Your task to perform on an android device: turn on javascript in the chrome app Image 0: 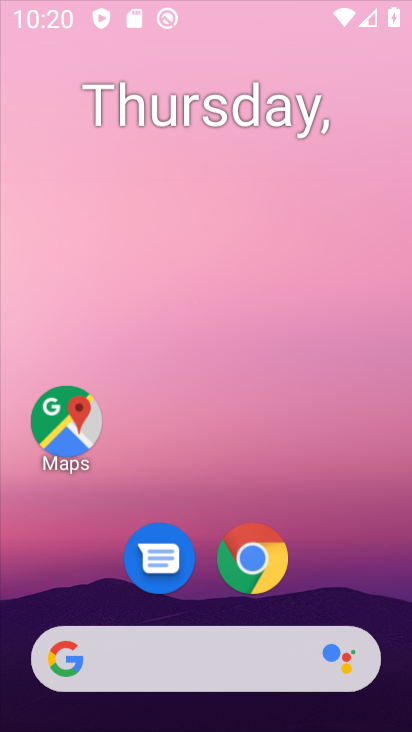
Step 0: click (71, 412)
Your task to perform on an android device: turn on javascript in the chrome app Image 1: 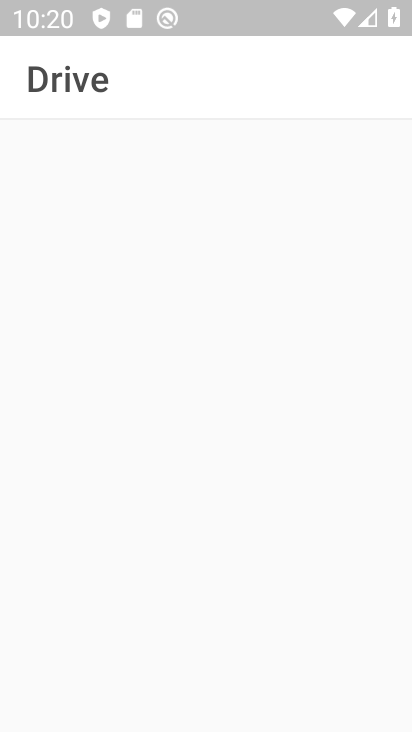
Step 1: press home button
Your task to perform on an android device: turn on javascript in the chrome app Image 2: 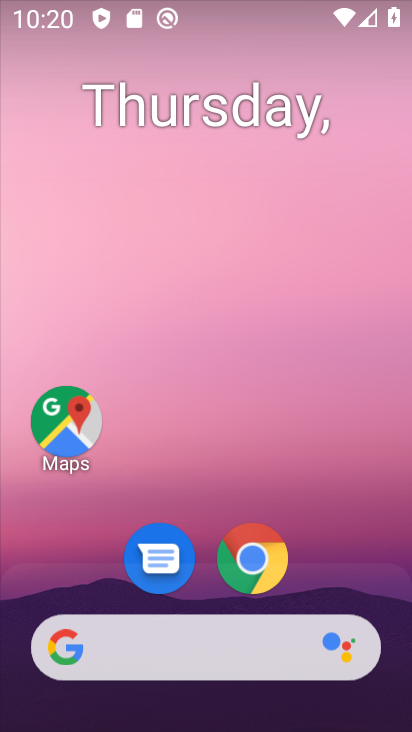
Step 2: click (255, 557)
Your task to perform on an android device: turn on javascript in the chrome app Image 3: 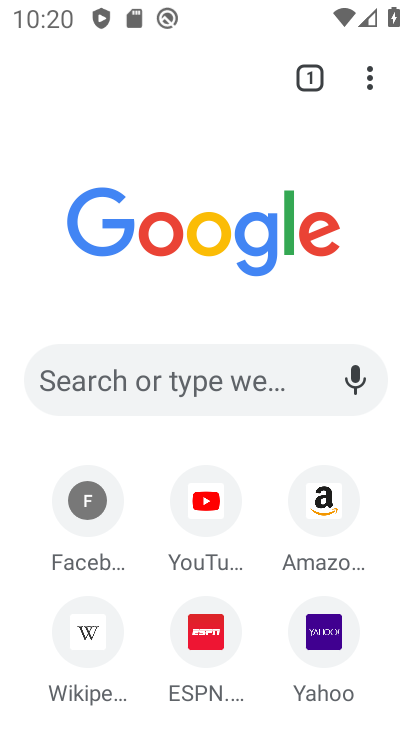
Step 3: click (369, 87)
Your task to perform on an android device: turn on javascript in the chrome app Image 4: 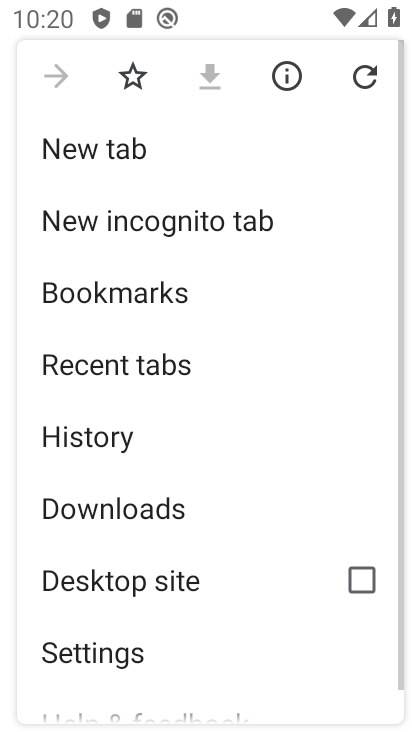
Step 4: click (113, 651)
Your task to perform on an android device: turn on javascript in the chrome app Image 5: 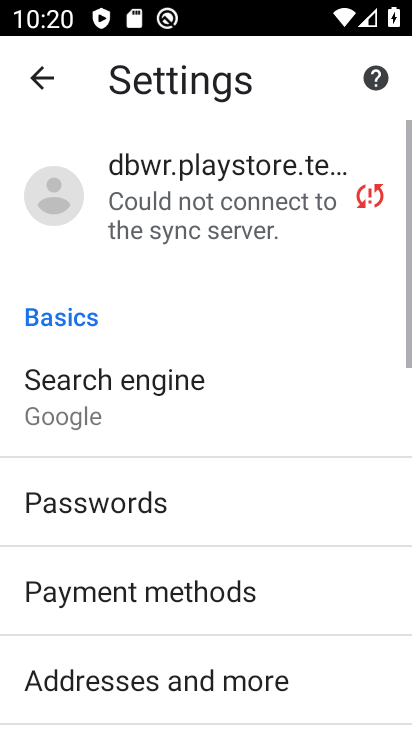
Step 5: drag from (283, 615) to (316, 104)
Your task to perform on an android device: turn on javascript in the chrome app Image 6: 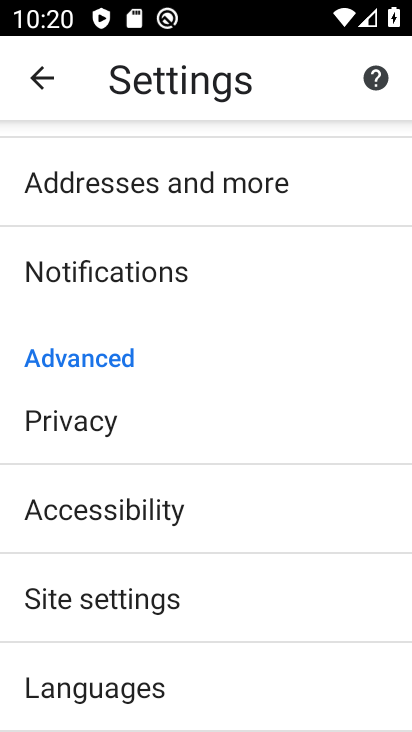
Step 6: click (133, 610)
Your task to perform on an android device: turn on javascript in the chrome app Image 7: 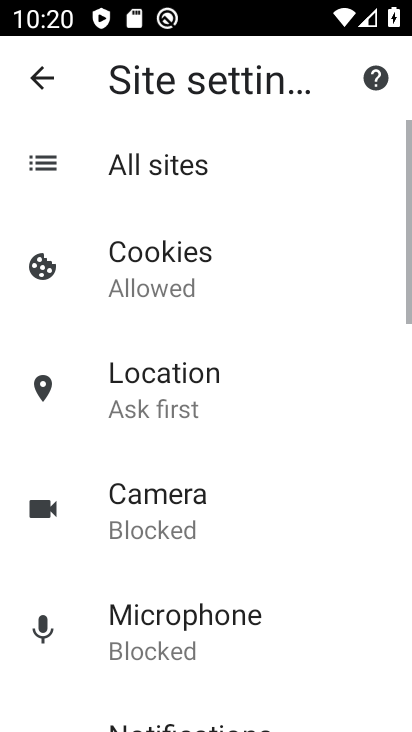
Step 7: drag from (246, 539) to (282, 242)
Your task to perform on an android device: turn on javascript in the chrome app Image 8: 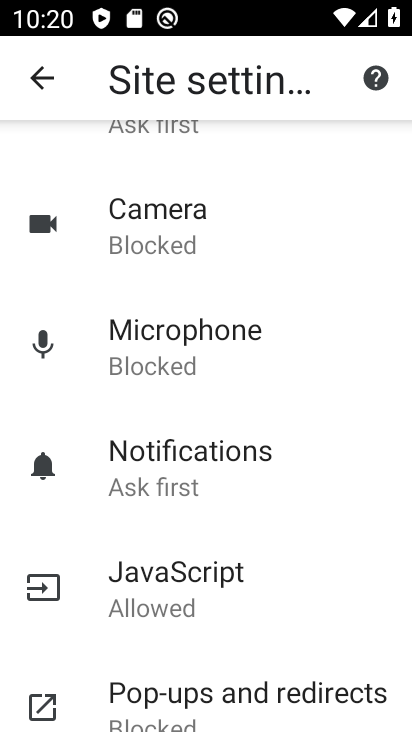
Step 8: click (209, 587)
Your task to perform on an android device: turn on javascript in the chrome app Image 9: 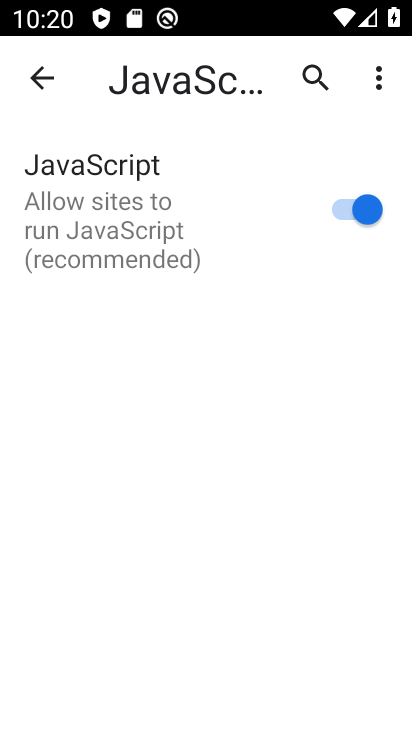
Step 9: task complete